Your task to perform on an android device: change the clock display to show seconds Image 0: 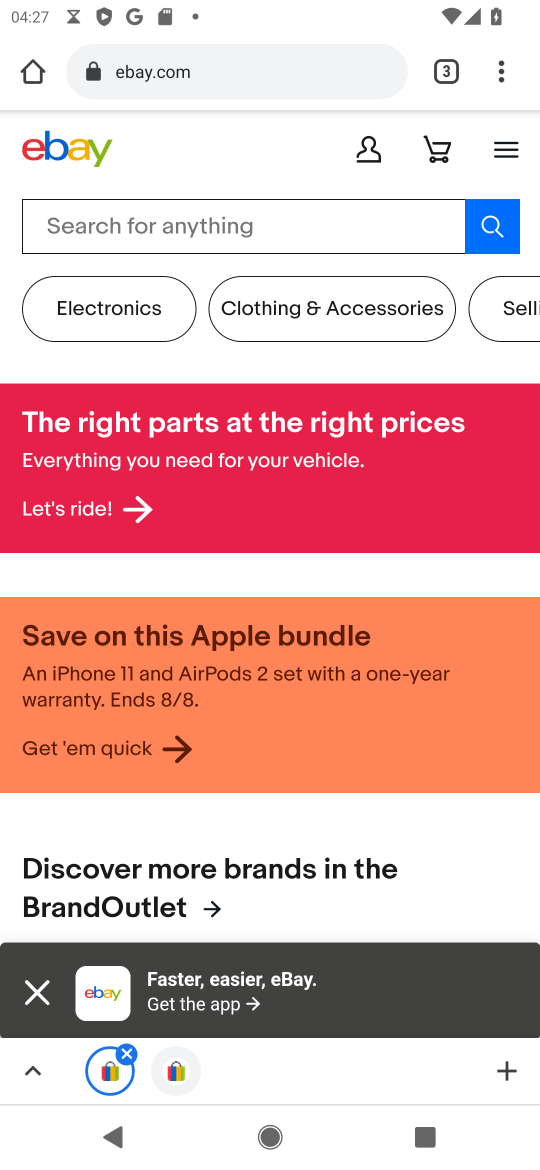
Step 0: press home button
Your task to perform on an android device: change the clock display to show seconds Image 1: 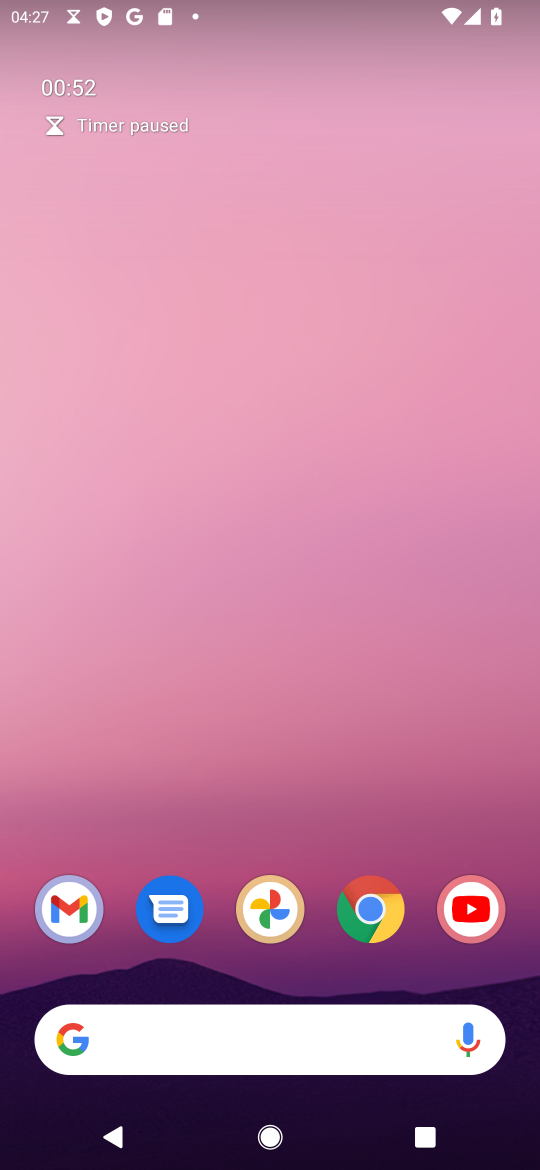
Step 1: drag from (281, 1037) to (427, 281)
Your task to perform on an android device: change the clock display to show seconds Image 2: 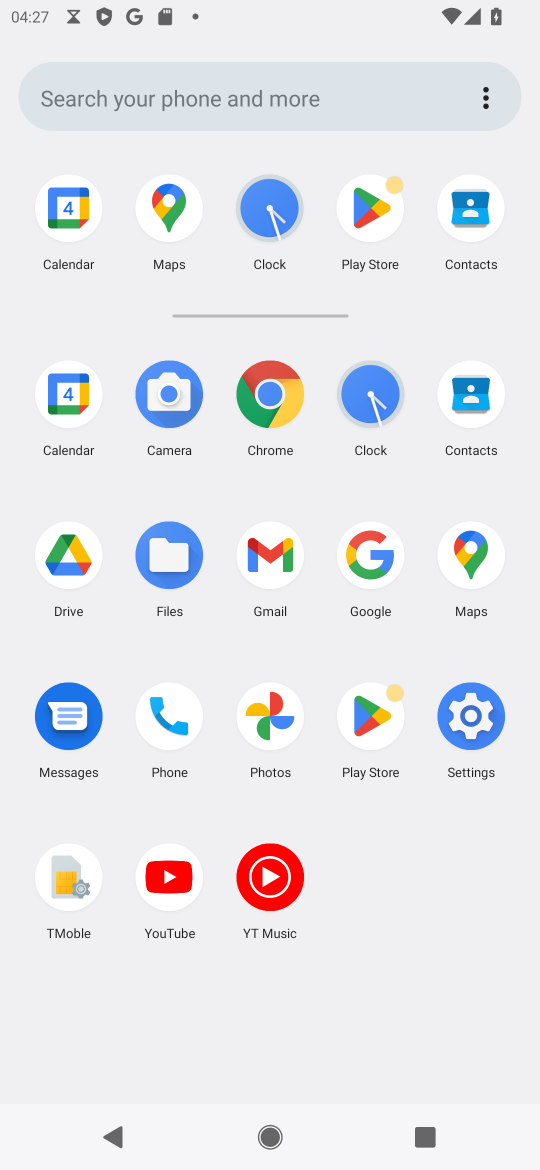
Step 2: click (371, 401)
Your task to perform on an android device: change the clock display to show seconds Image 3: 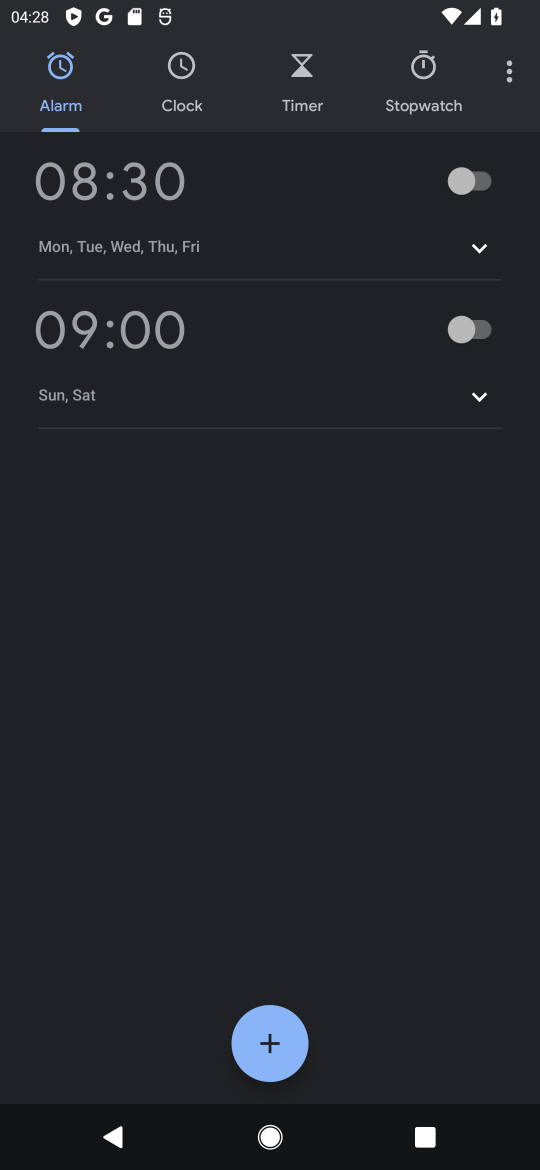
Step 3: click (505, 69)
Your task to perform on an android device: change the clock display to show seconds Image 4: 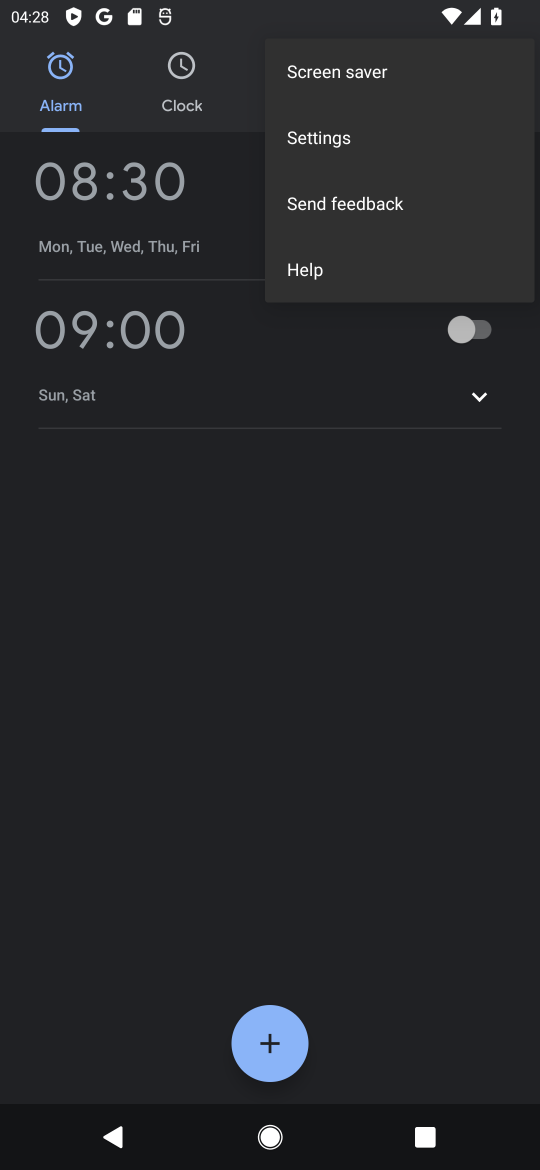
Step 4: click (342, 139)
Your task to perform on an android device: change the clock display to show seconds Image 5: 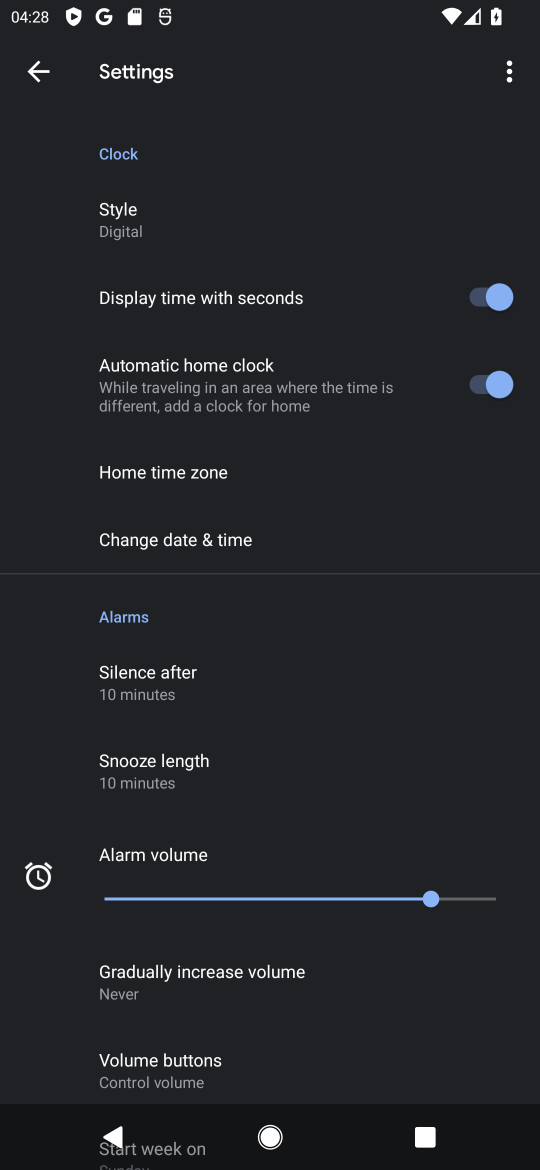
Step 5: task complete